Your task to perform on an android device: open app "Adobe Acrobat Reader: Edit PDF" (install if not already installed) Image 0: 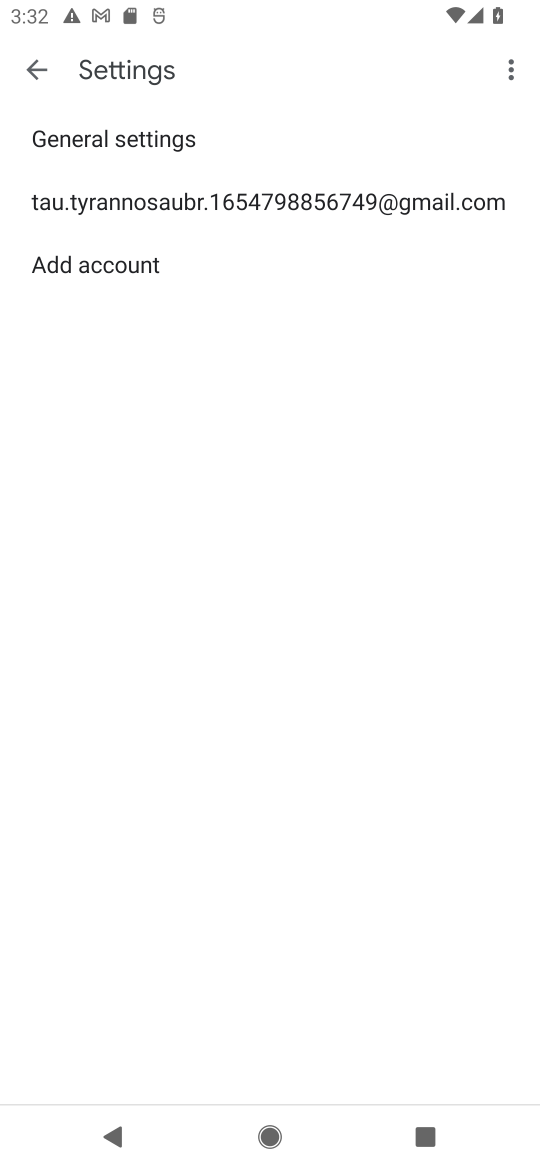
Step 0: press home button
Your task to perform on an android device: open app "Adobe Acrobat Reader: Edit PDF" (install if not already installed) Image 1: 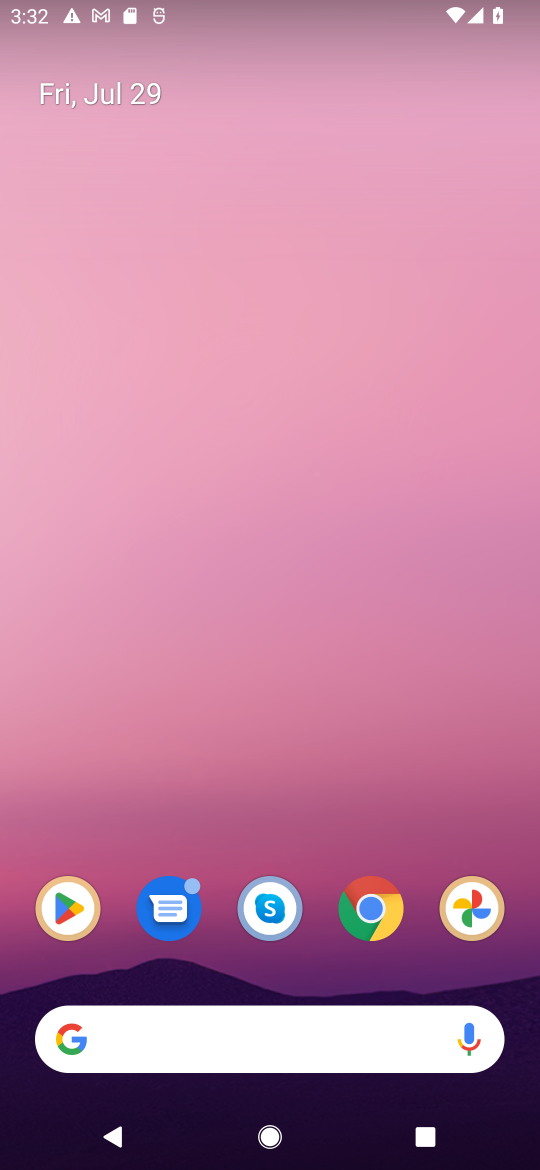
Step 1: click (76, 905)
Your task to perform on an android device: open app "Adobe Acrobat Reader: Edit PDF" (install if not already installed) Image 2: 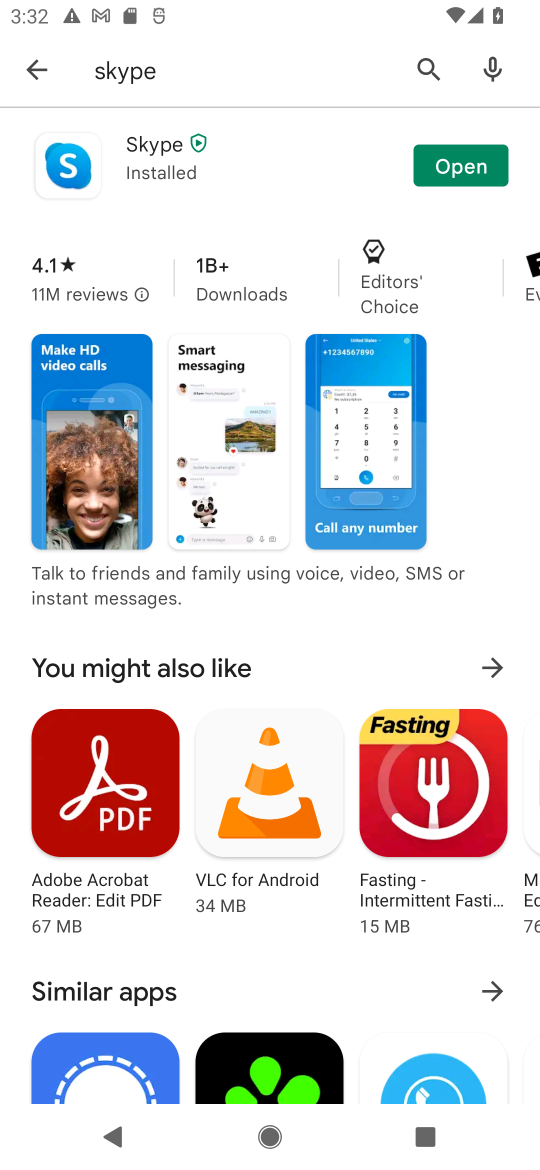
Step 2: click (429, 54)
Your task to perform on an android device: open app "Adobe Acrobat Reader: Edit PDF" (install if not already installed) Image 3: 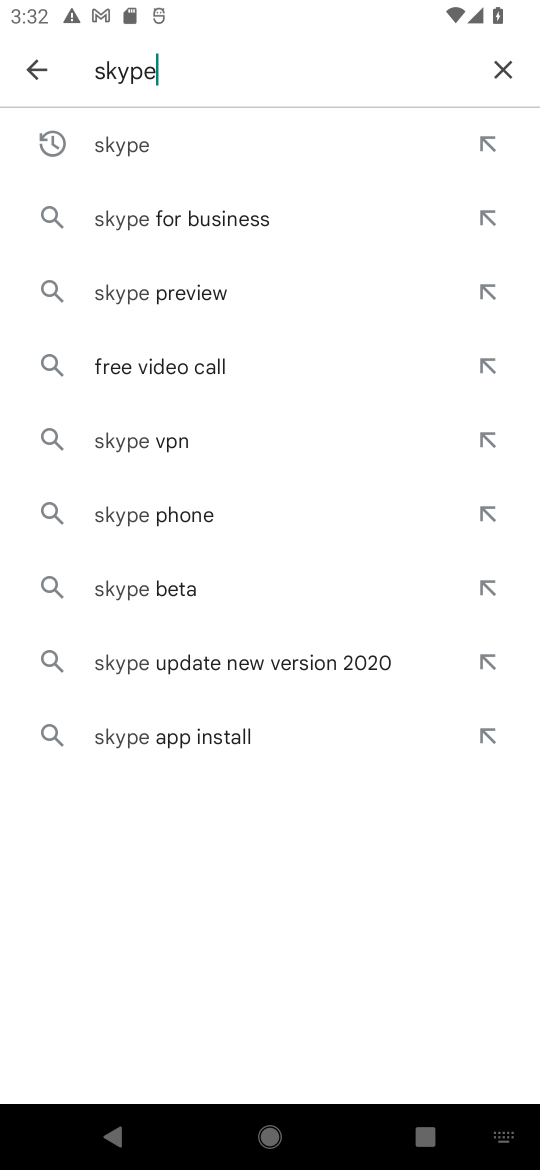
Step 3: click (507, 60)
Your task to perform on an android device: open app "Adobe Acrobat Reader: Edit PDF" (install if not already installed) Image 4: 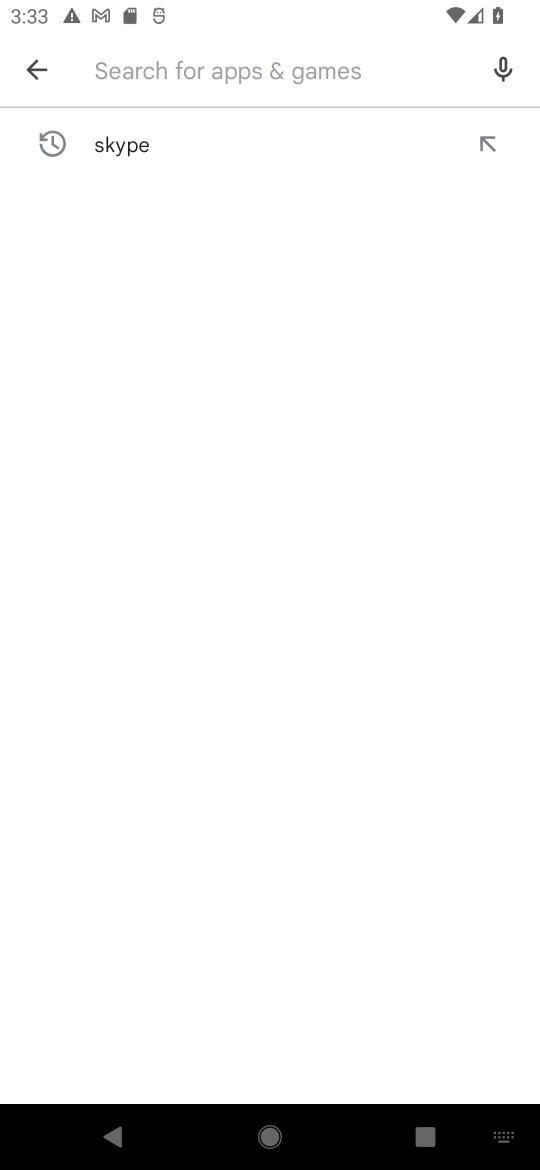
Step 4: type "adobe acrobat reader: edit pdf"
Your task to perform on an android device: open app "Adobe Acrobat Reader: Edit PDF" (install if not already installed) Image 5: 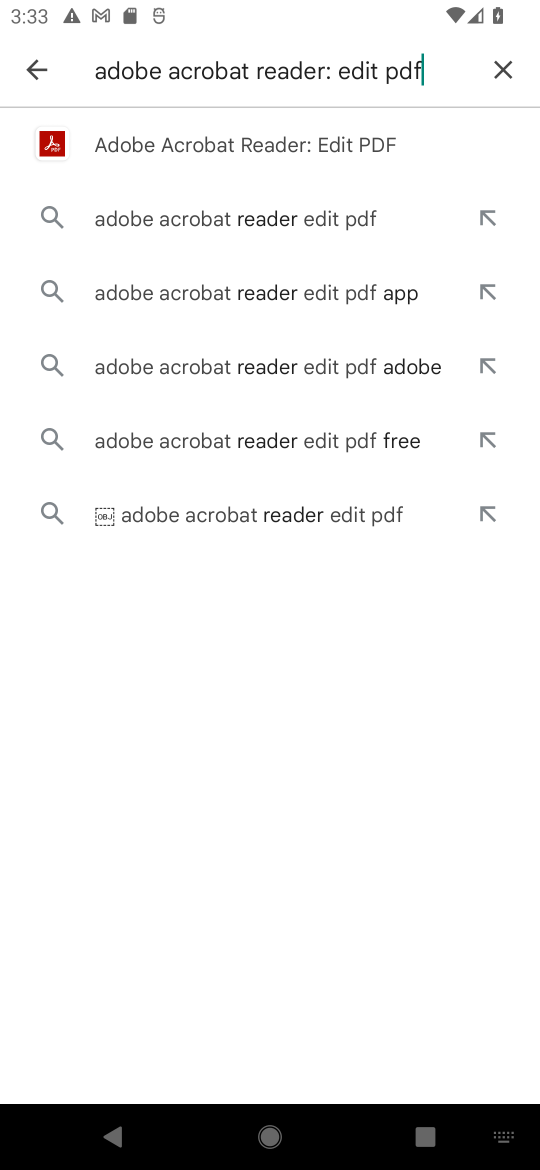
Step 5: click (370, 131)
Your task to perform on an android device: open app "Adobe Acrobat Reader: Edit PDF" (install if not already installed) Image 6: 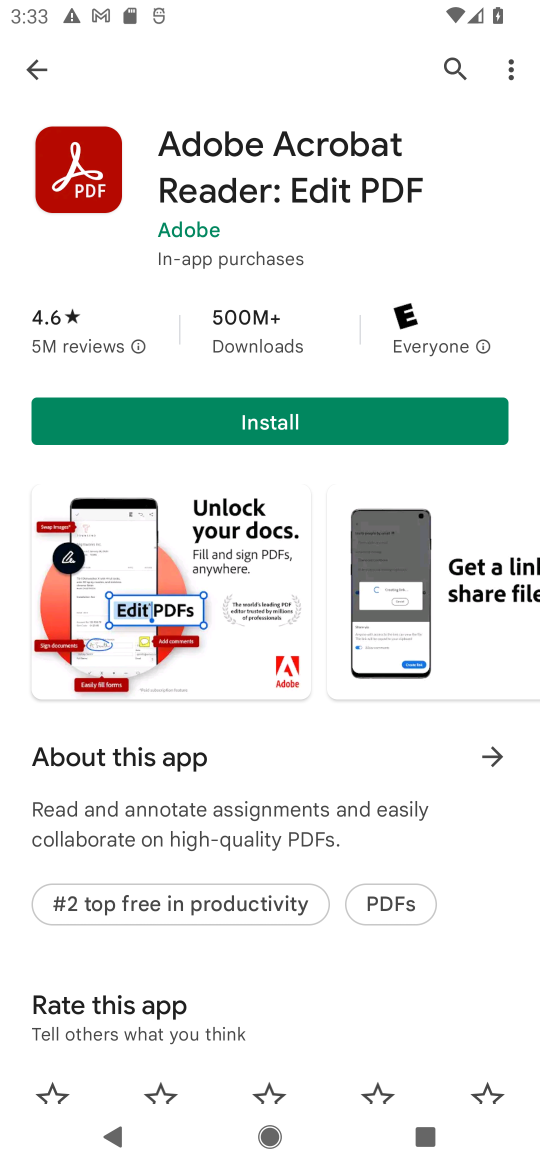
Step 6: click (241, 408)
Your task to perform on an android device: open app "Adobe Acrobat Reader: Edit PDF" (install if not already installed) Image 7: 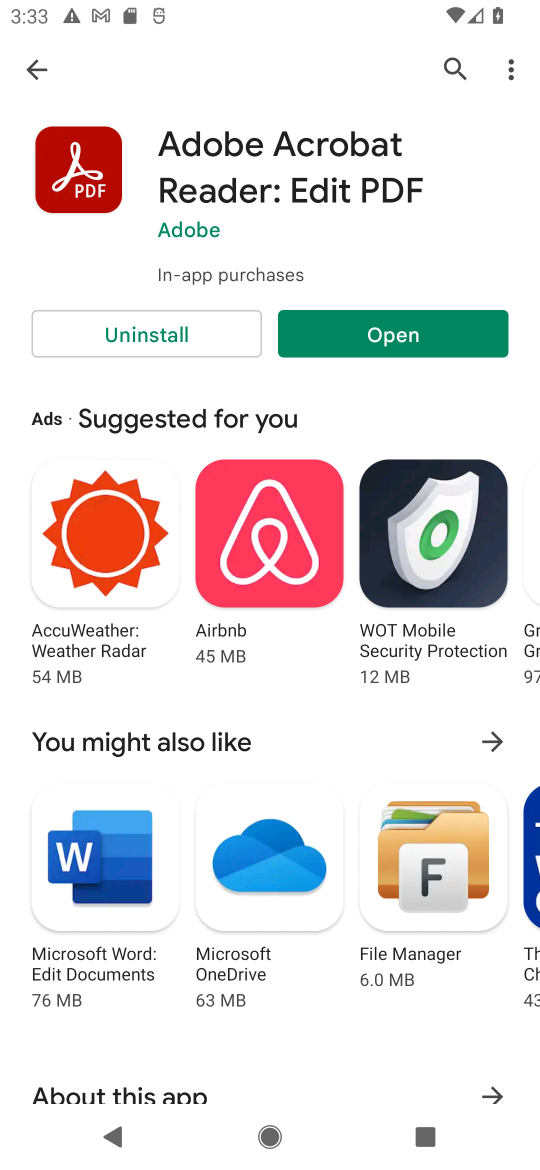
Step 7: click (386, 341)
Your task to perform on an android device: open app "Adobe Acrobat Reader: Edit PDF" (install if not already installed) Image 8: 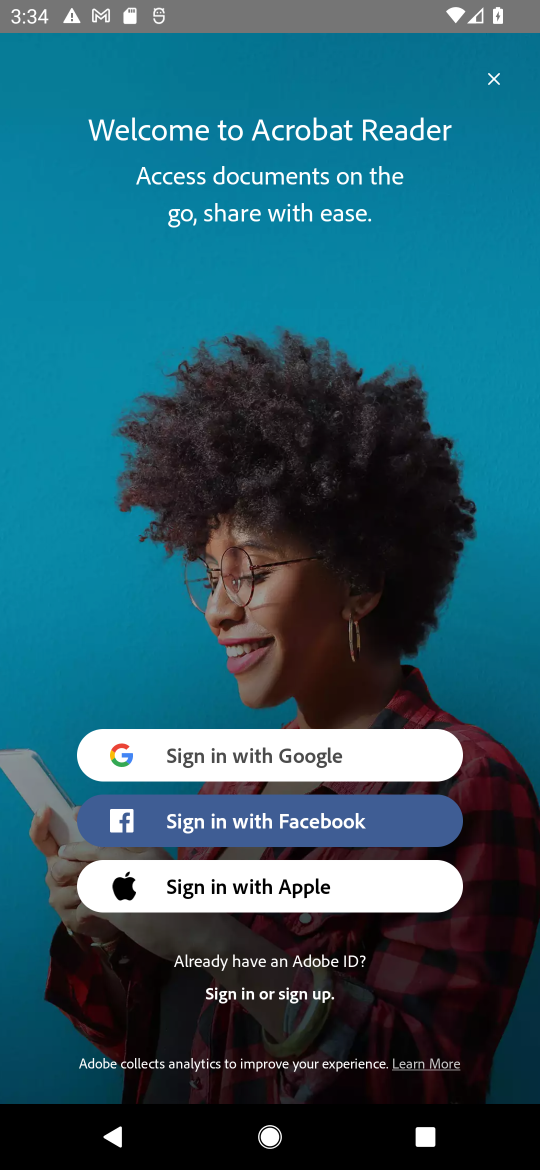
Step 8: task complete